Your task to perform on an android device: Do I have any events today? Image 0: 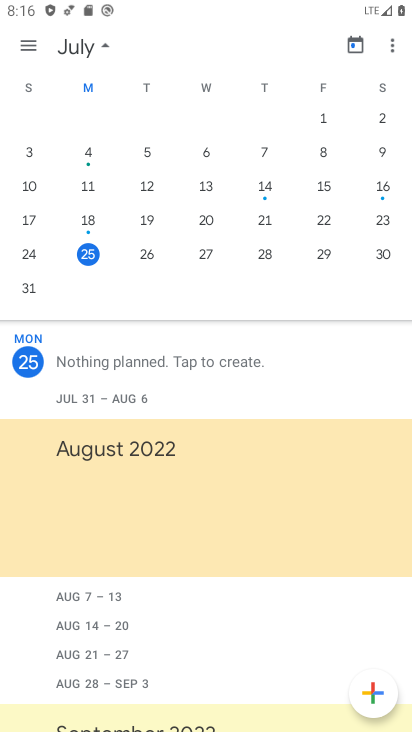
Step 0: press home button
Your task to perform on an android device: Do I have any events today? Image 1: 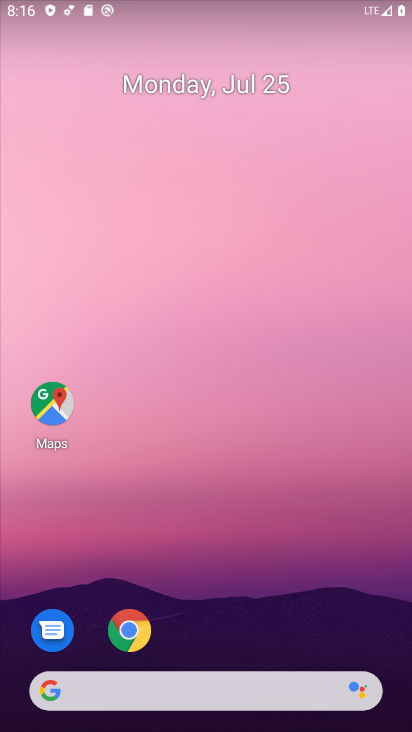
Step 1: click (13, 708)
Your task to perform on an android device: Do I have any events today? Image 2: 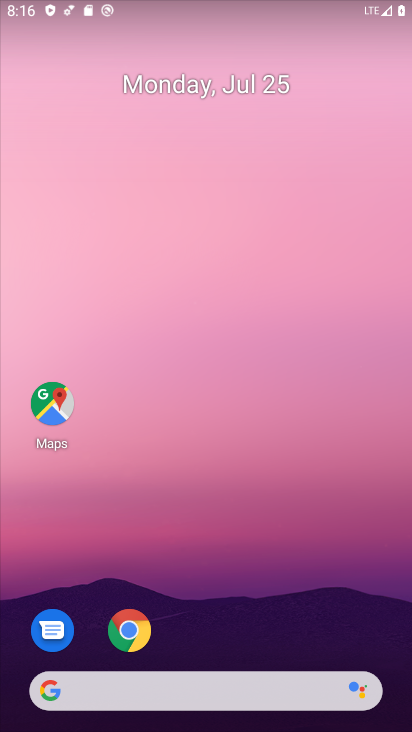
Step 2: drag from (13, 708) to (342, 151)
Your task to perform on an android device: Do I have any events today? Image 3: 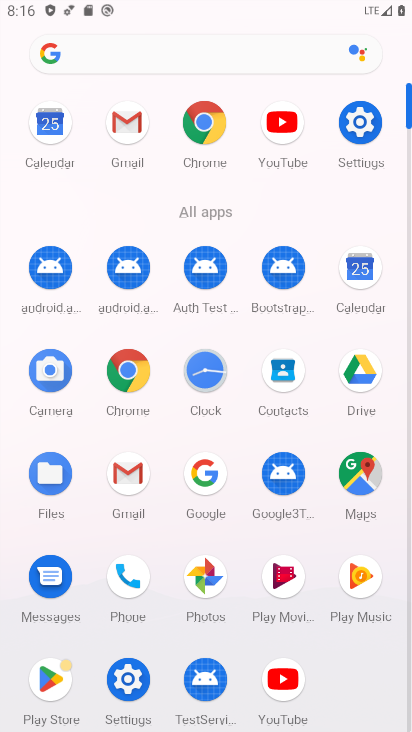
Step 3: click (371, 275)
Your task to perform on an android device: Do I have any events today? Image 4: 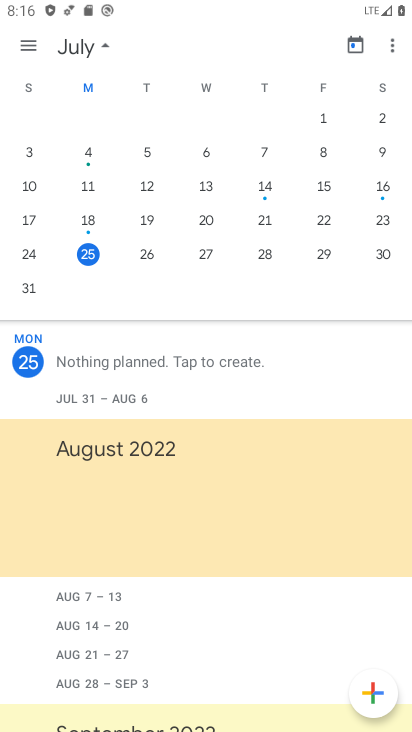
Step 4: task complete